Your task to perform on an android device: change timer sound Image 0: 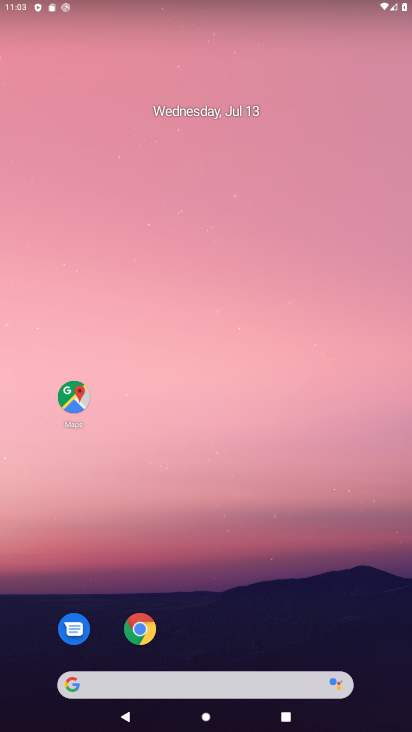
Step 0: drag from (256, 360) to (300, 139)
Your task to perform on an android device: change timer sound Image 1: 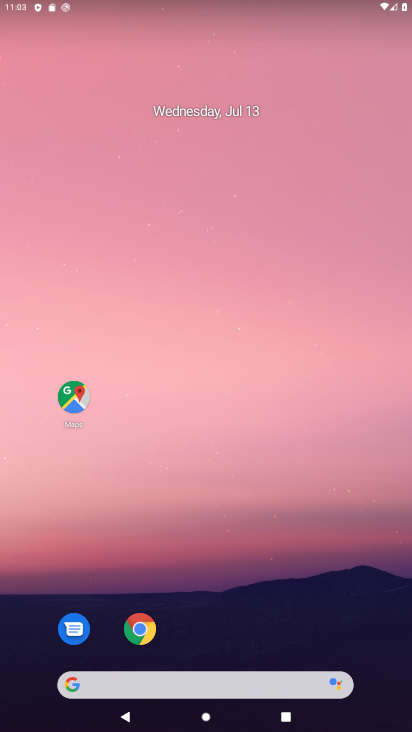
Step 1: drag from (186, 665) to (293, 49)
Your task to perform on an android device: change timer sound Image 2: 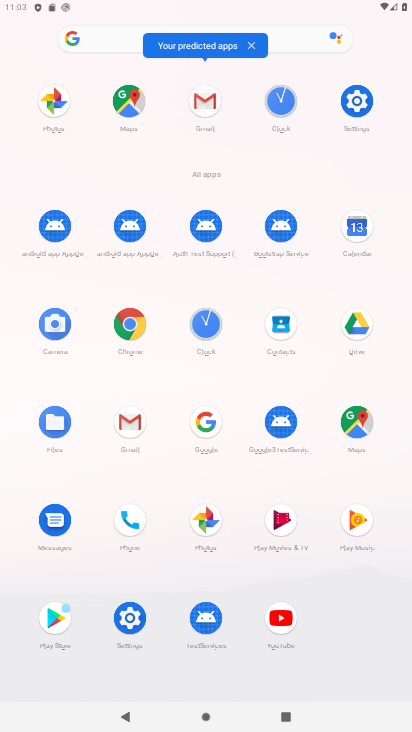
Step 2: click (207, 331)
Your task to perform on an android device: change timer sound Image 3: 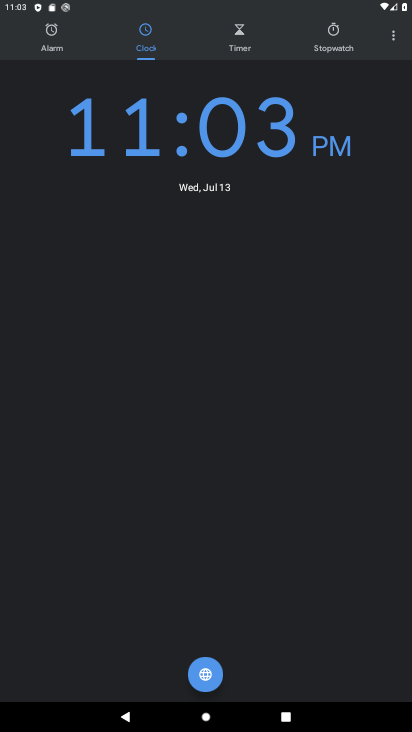
Step 3: click (393, 35)
Your task to perform on an android device: change timer sound Image 4: 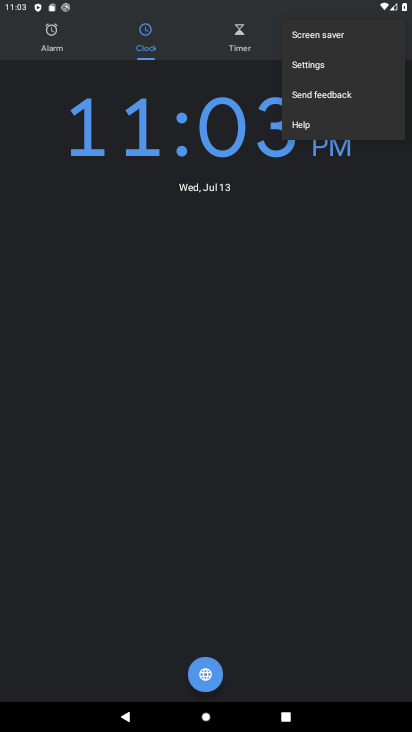
Step 4: click (365, 67)
Your task to perform on an android device: change timer sound Image 5: 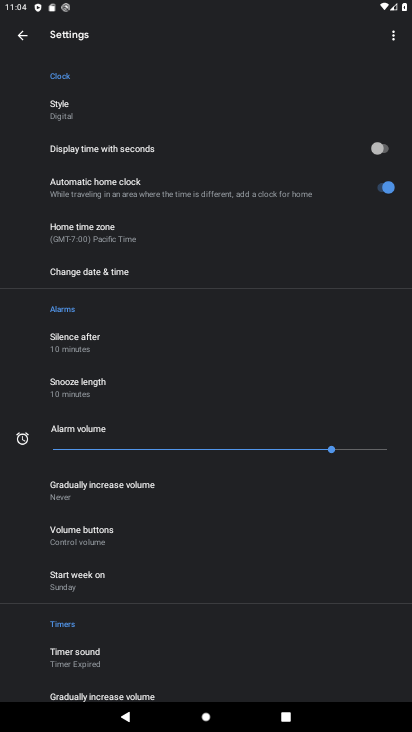
Step 5: drag from (101, 563) to (157, 381)
Your task to perform on an android device: change timer sound Image 6: 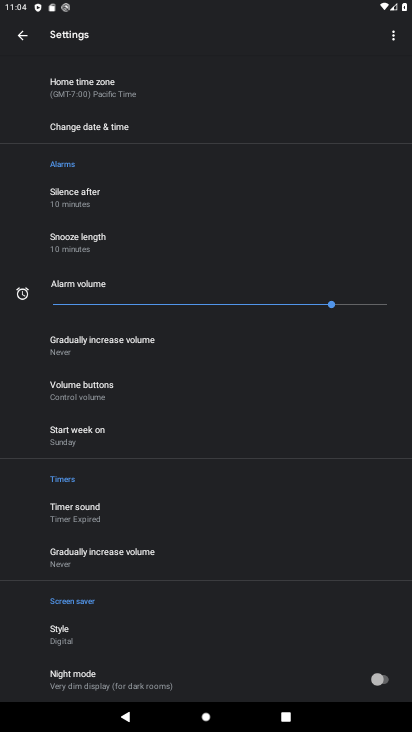
Step 6: click (140, 518)
Your task to perform on an android device: change timer sound Image 7: 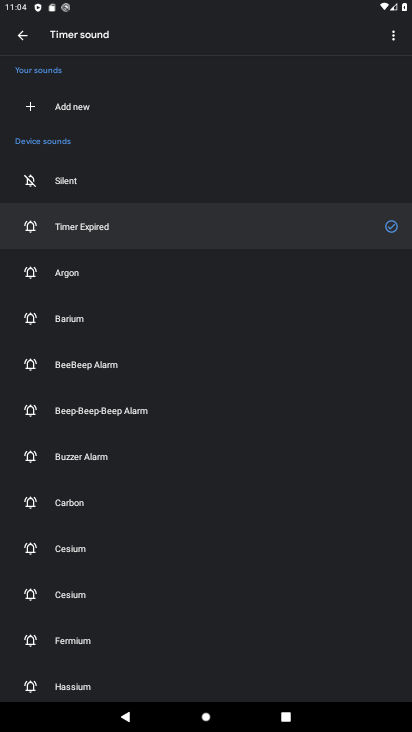
Step 7: click (132, 643)
Your task to perform on an android device: change timer sound Image 8: 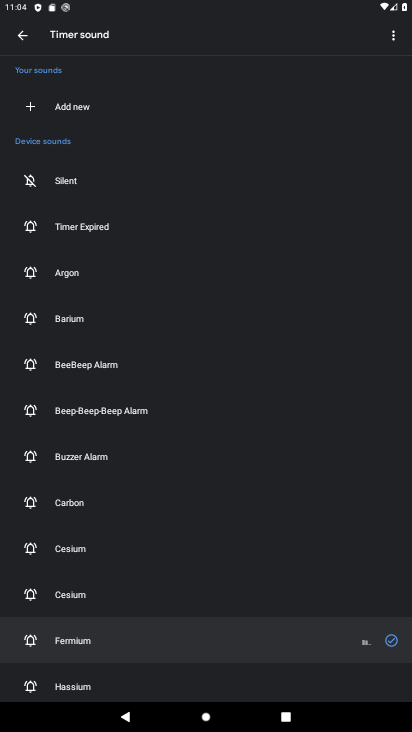
Step 8: task complete